Your task to perform on an android device: uninstall "Google Pay: Save, Pay, Manage" Image 0: 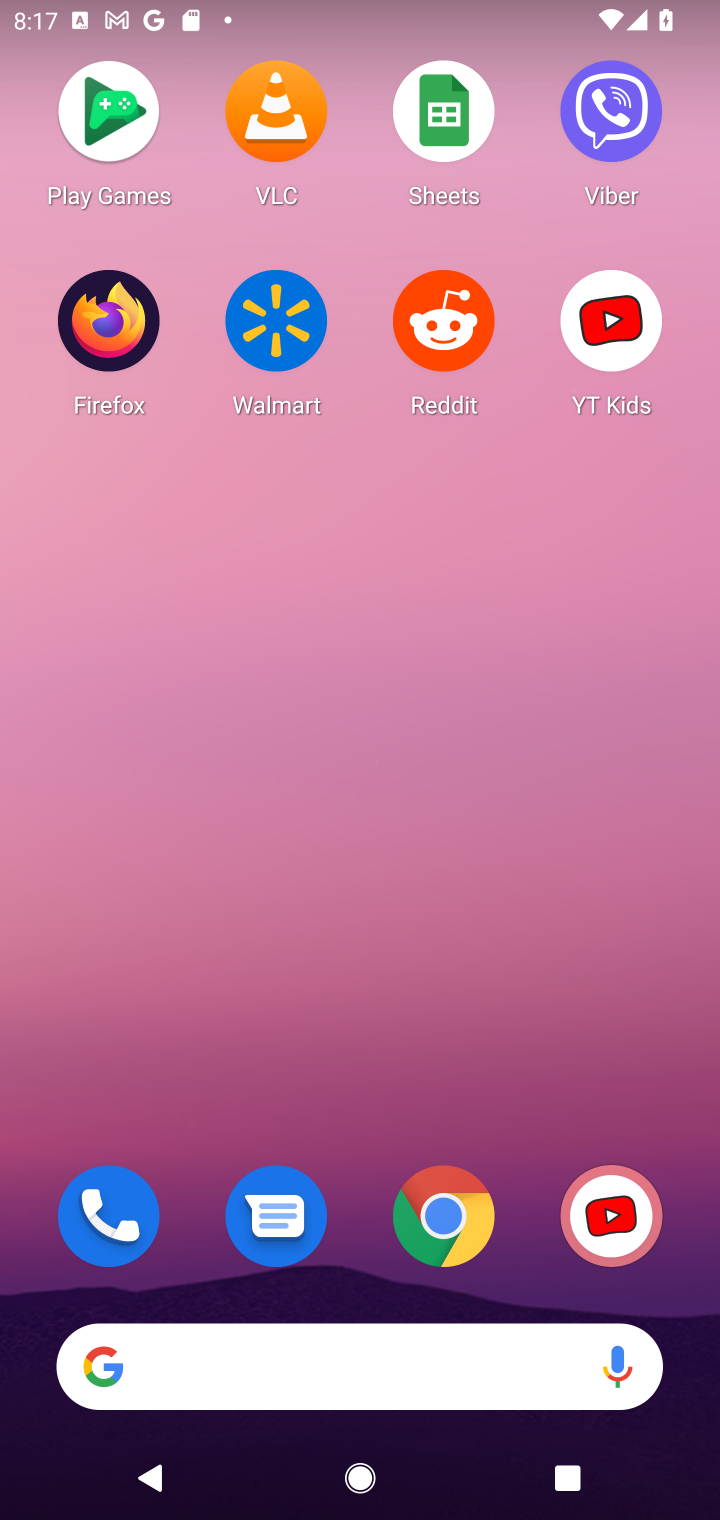
Step 0: drag from (316, 1171) to (360, 310)
Your task to perform on an android device: uninstall "Google Pay: Save, Pay, Manage" Image 1: 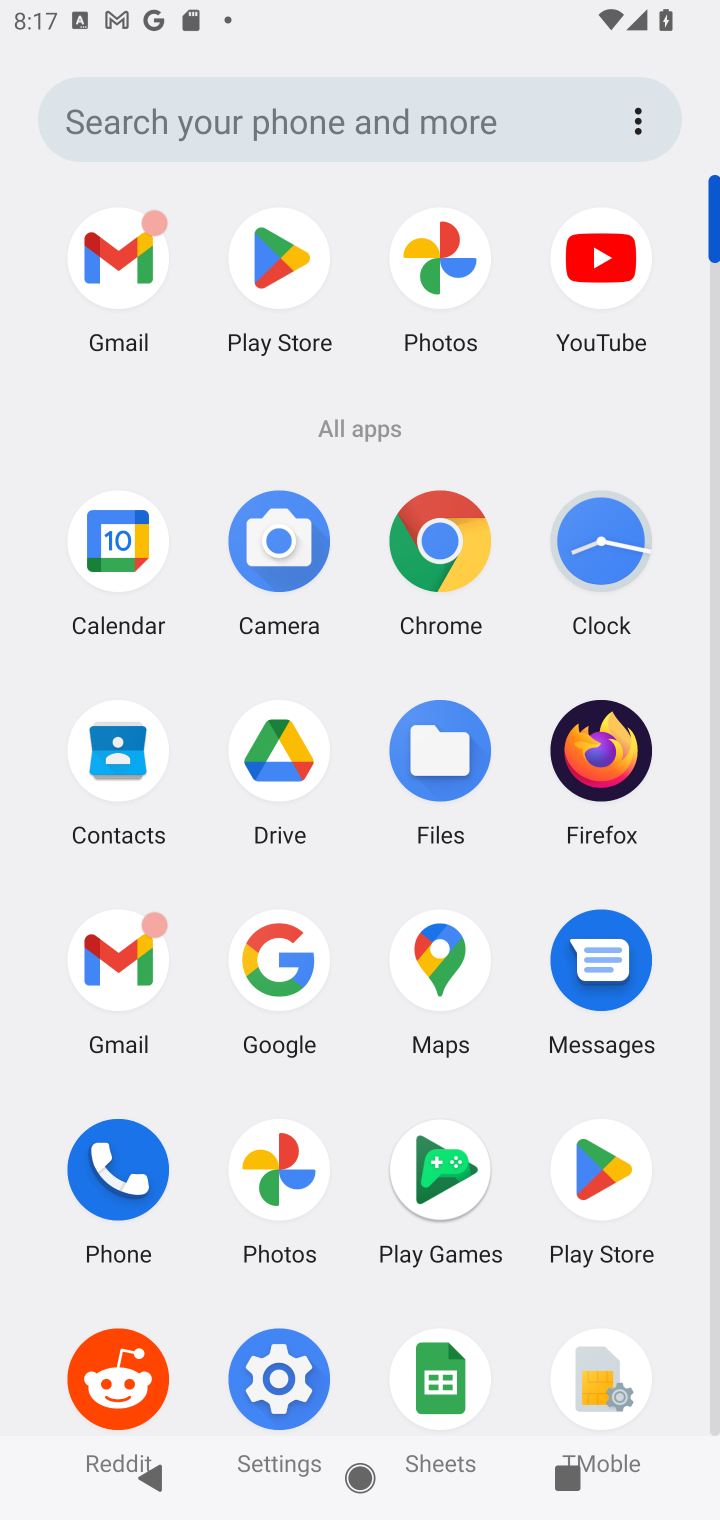
Step 1: click (297, 239)
Your task to perform on an android device: uninstall "Google Pay: Save, Pay, Manage" Image 2: 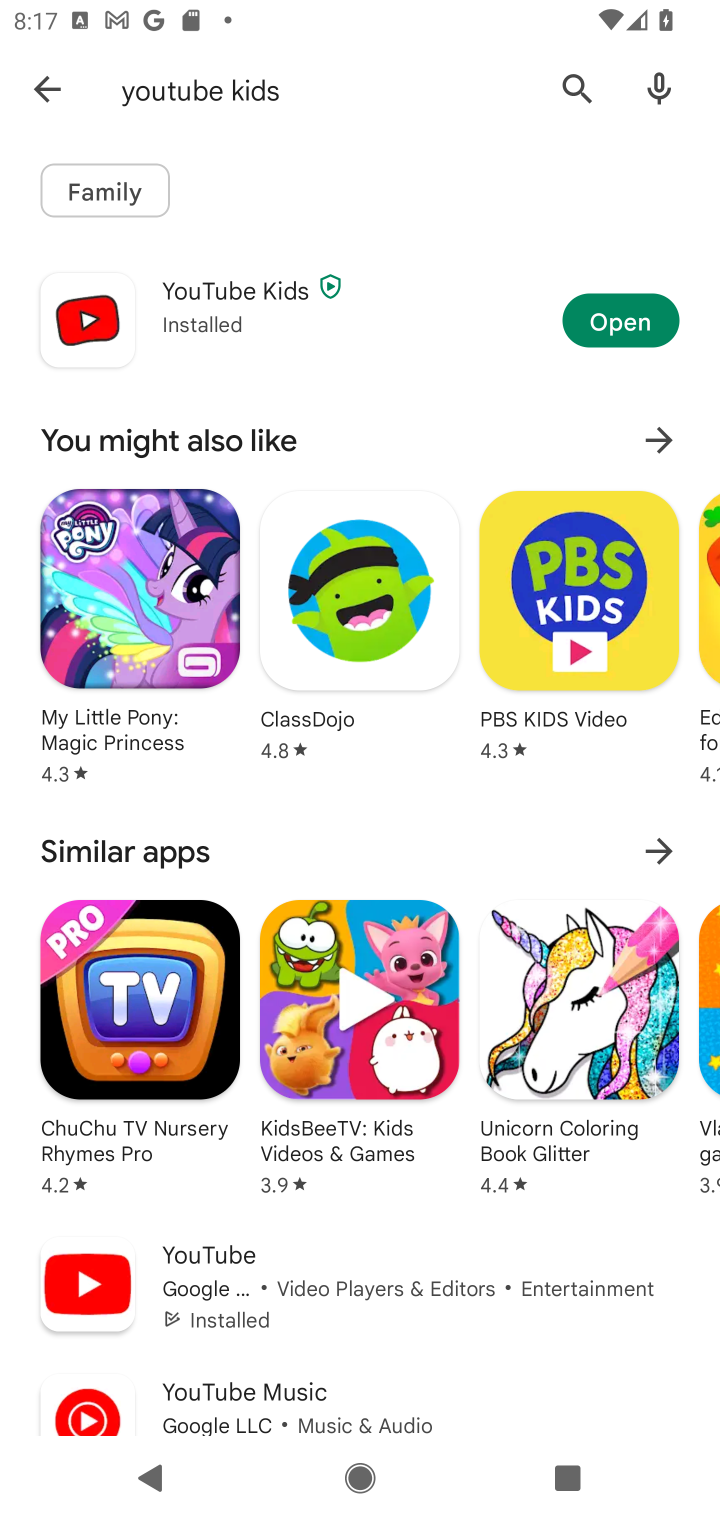
Step 2: click (572, 81)
Your task to perform on an android device: uninstall "Google Pay: Save, Pay, Manage" Image 3: 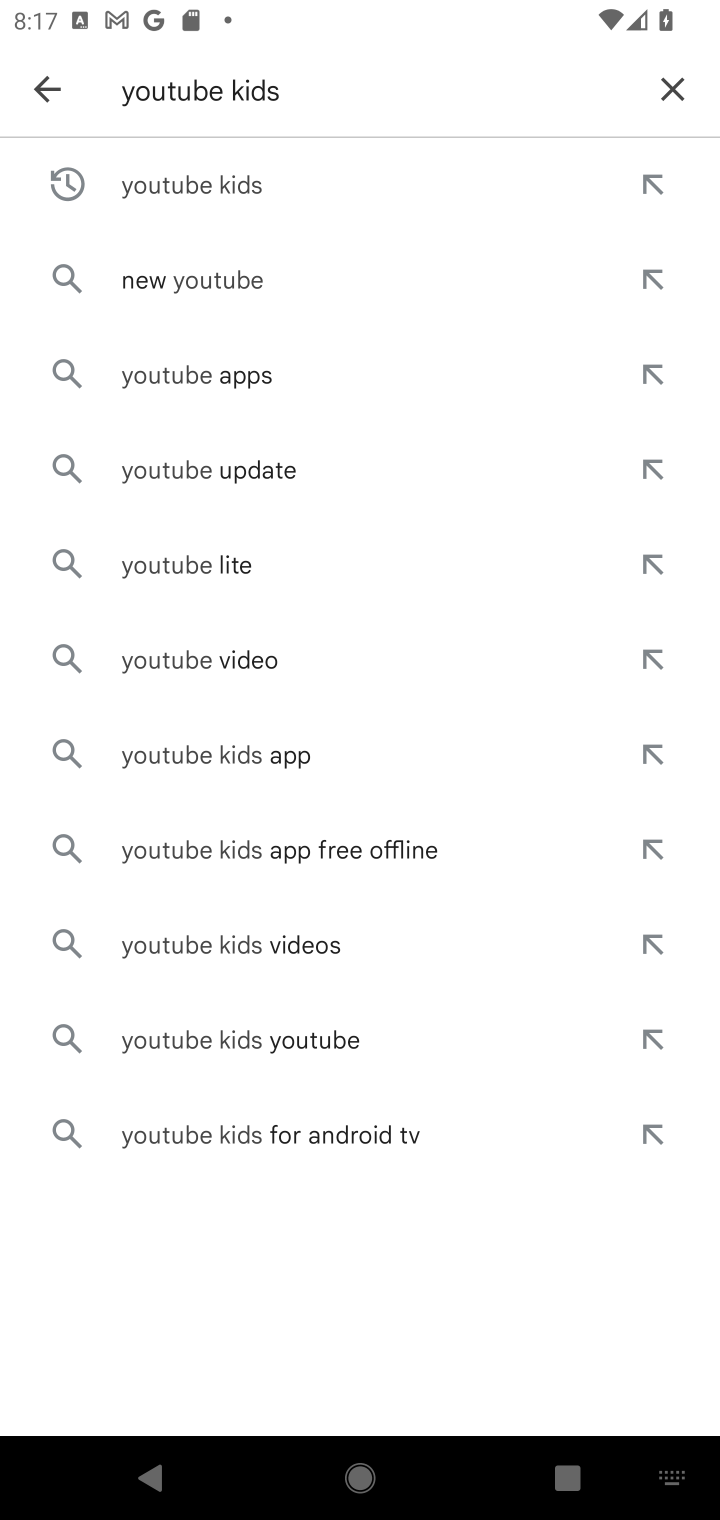
Step 3: click (688, 86)
Your task to perform on an android device: uninstall "Google Pay: Save, Pay, Manage" Image 4: 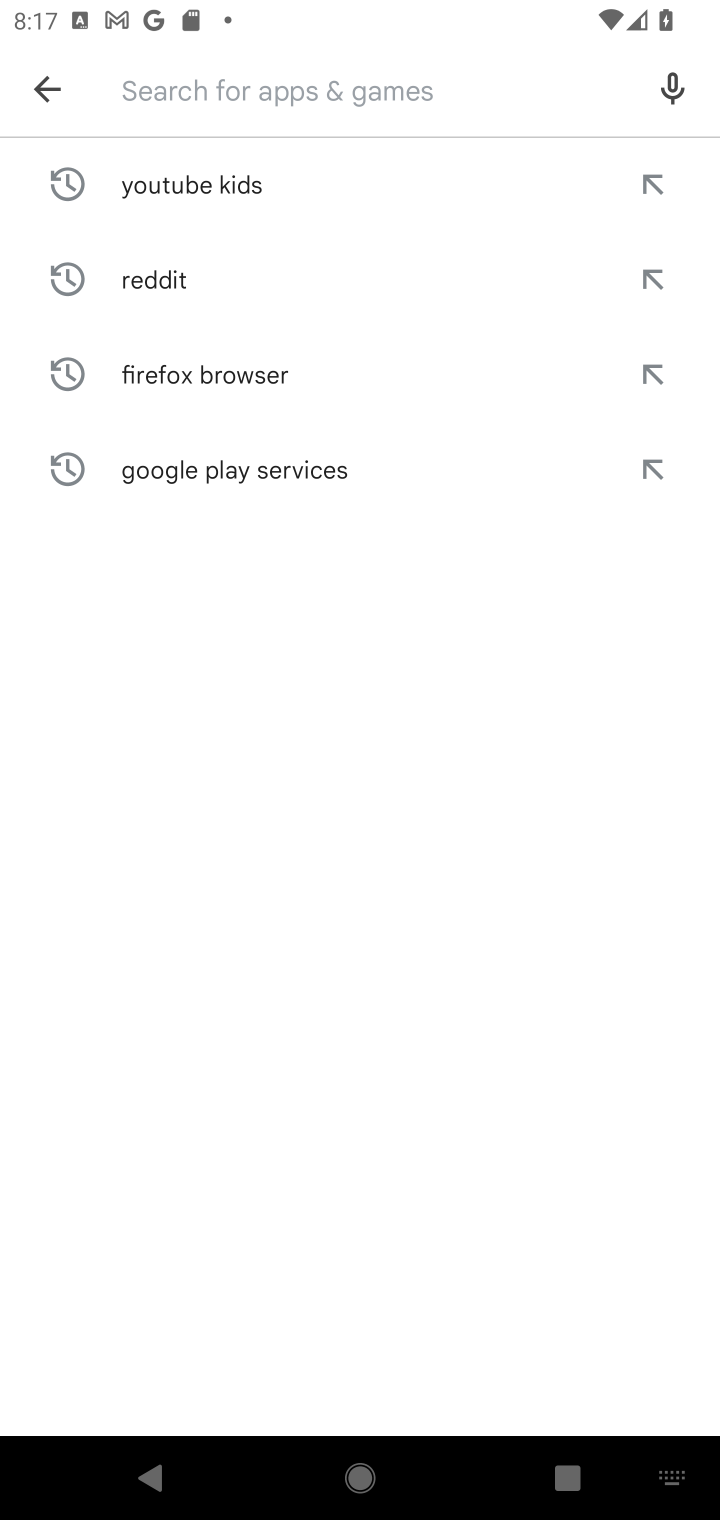
Step 4: click (299, 55)
Your task to perform on an android device: uninstall "Google Pay: Save, Pay, Manage" Image 5: 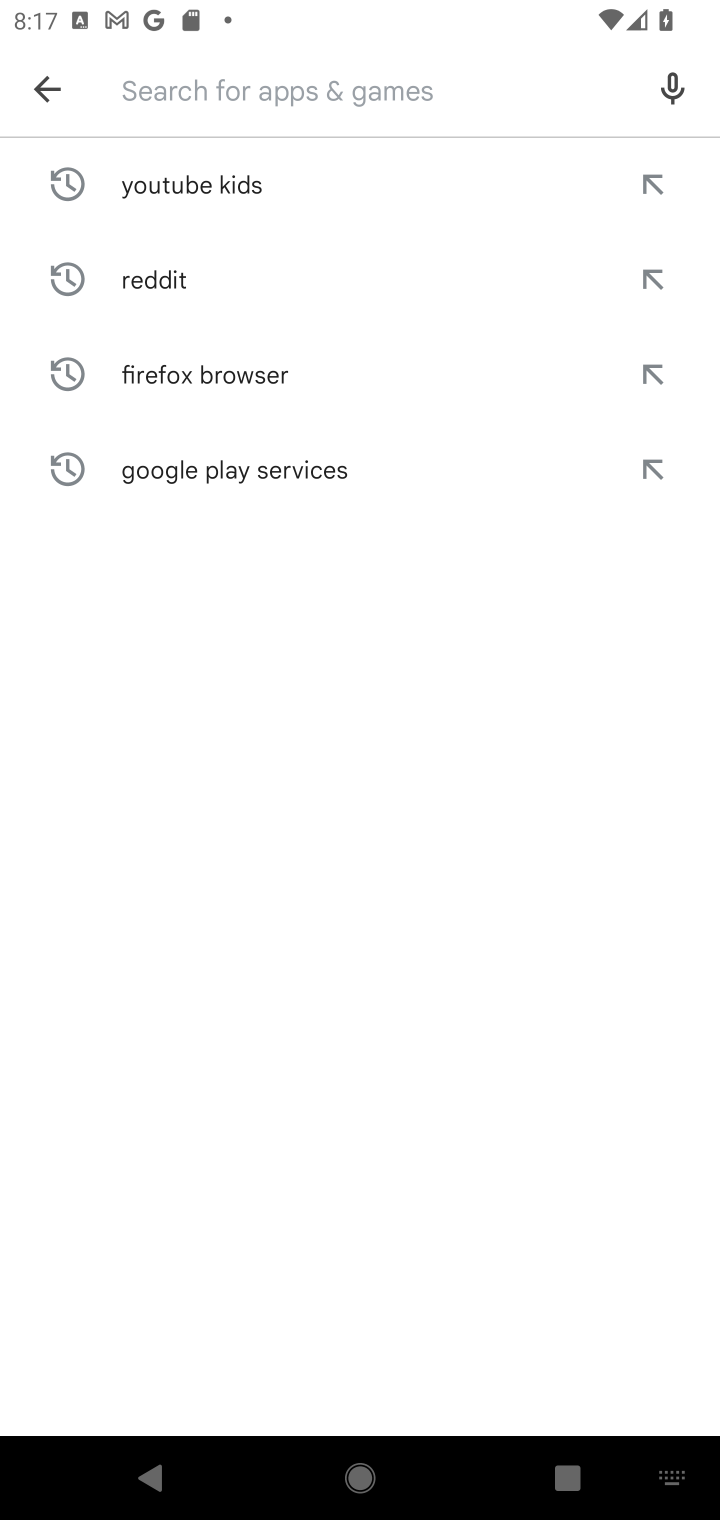
Step 5: type "google pay"
Your task to perform on an android device: uninstall "Google Pay: Save, Pay, Manage" Image 6: 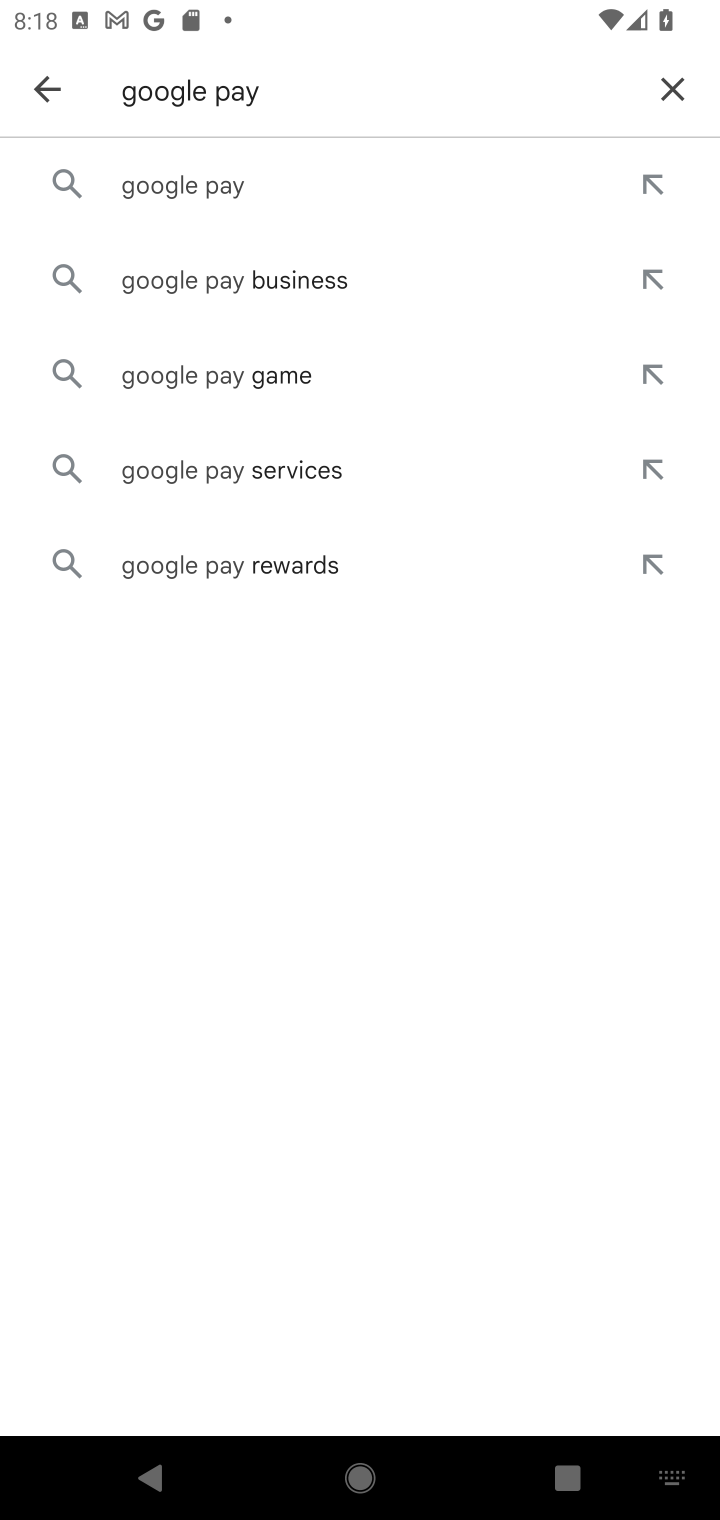
Step 6: click (250, 188)
Your task to perform on an android device: uninstall "Google Pay: Save, Pay, Manage" Image 7: 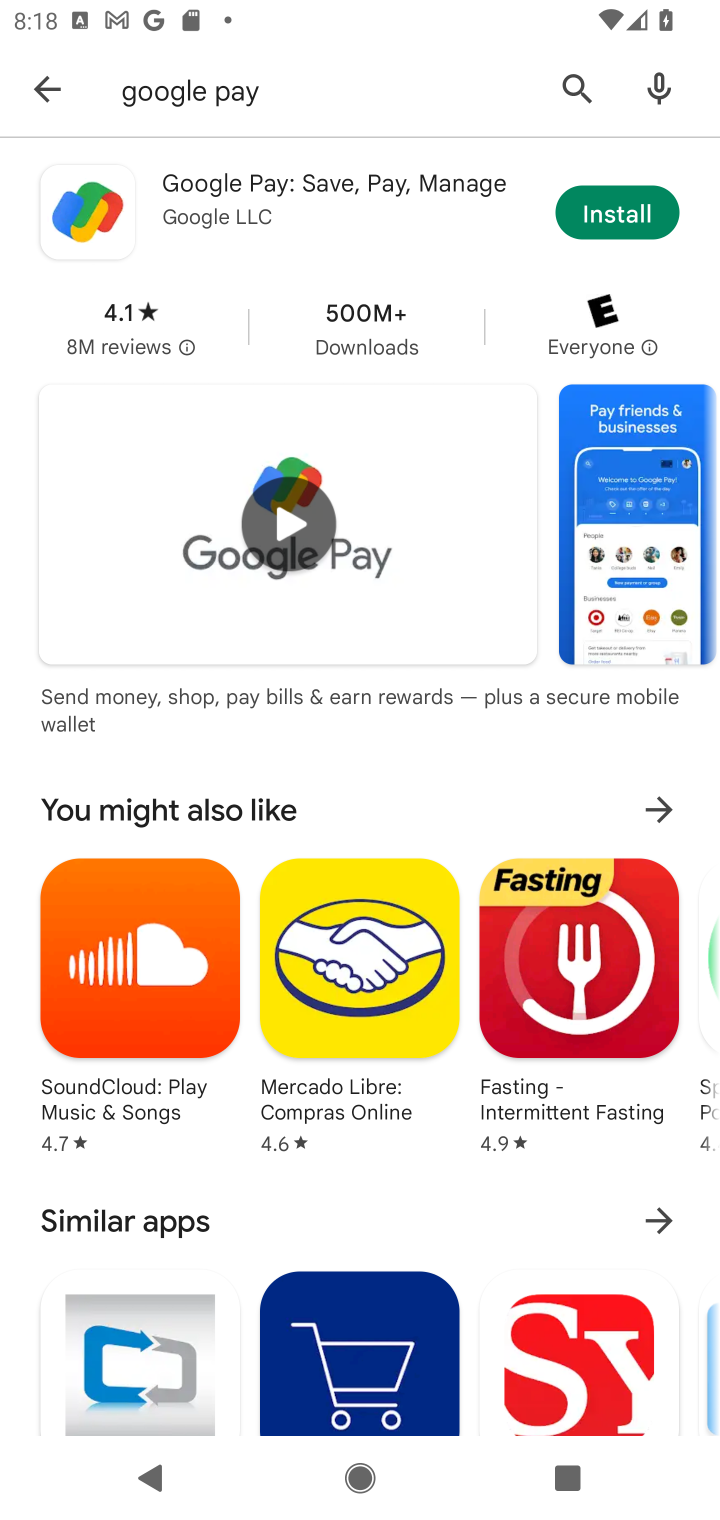
Step 7: task complete